Your task to perform on an android device: create a new album in the google photos Image 0: 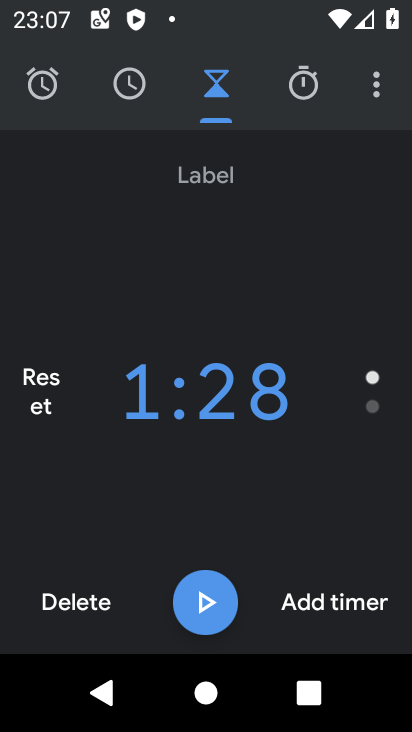
Step 0: press home button
Your task to perform on an android device: create a new album in the google photos Image 1: 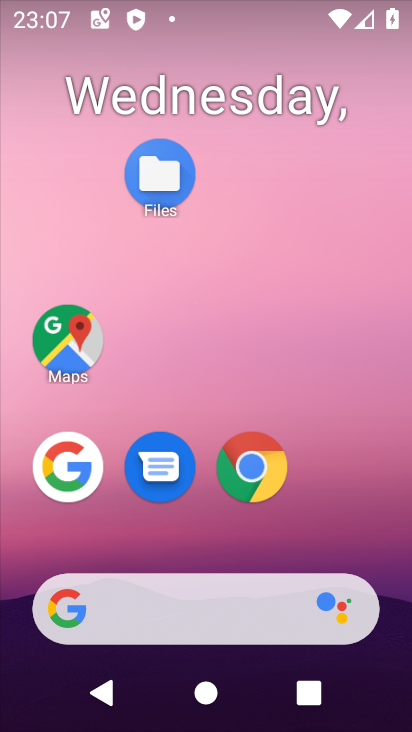
Step 1: drag from (185, 545) to (230, 19)
Your task to perform on an android device: create a new album in the google photos Image 2: 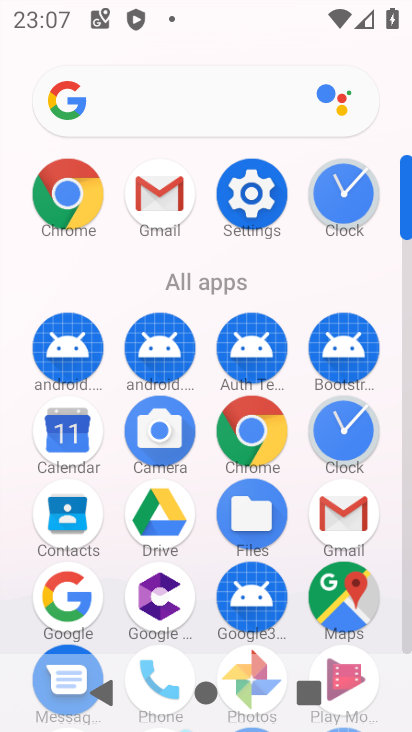
Step 2: drag from (219, 560) to (171, 57)
Your task to perform on an android device: create a new album in the google photos Image 3: 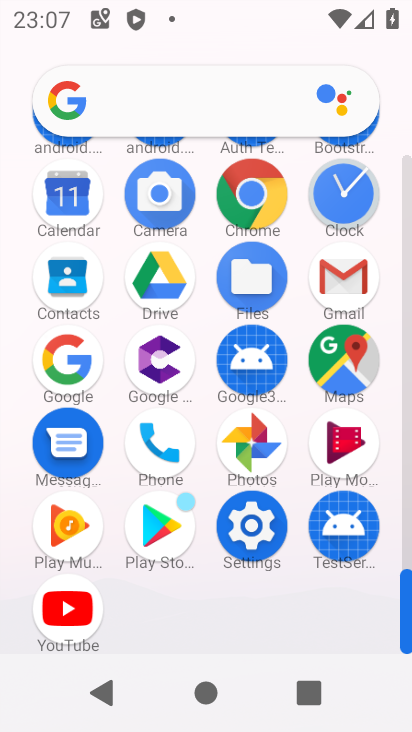
Step 3: click (261, 449)
Your task to perform on an android device: create a new album in the google photos Image 4: 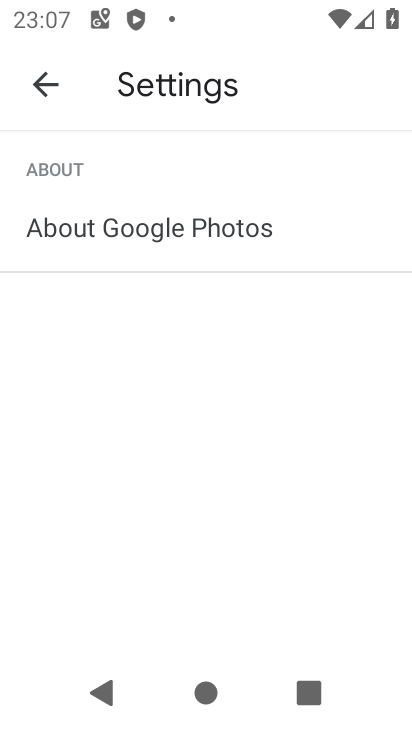
Step 4: click (59, 88)
Your task to perform on an android device: create a new album in the google photos Image 5: 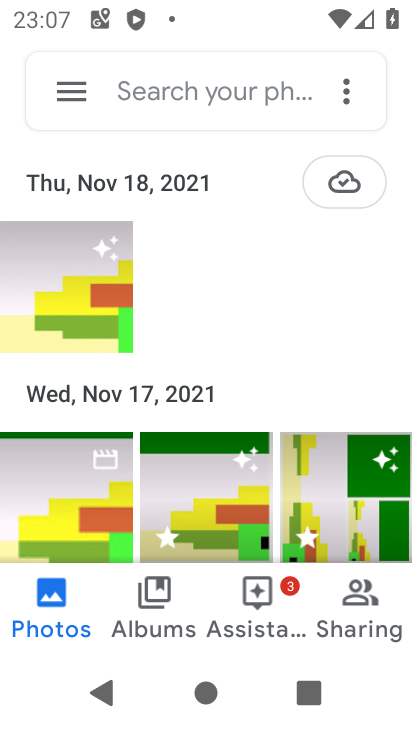
Step 5: click (111, 284)
Your task to perform on an android device: create a new album in the google photos Image 6: 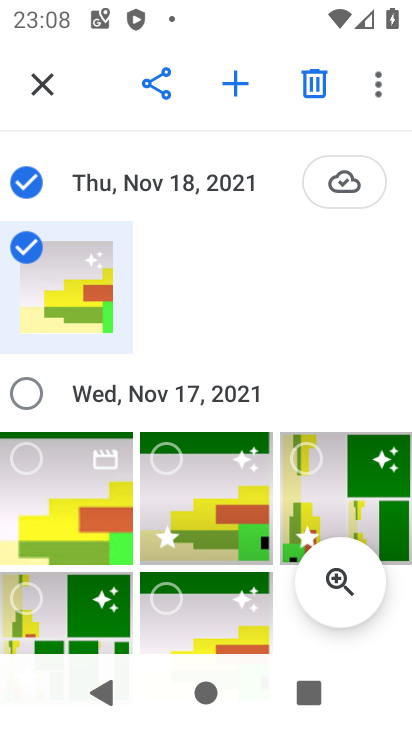
Step 6: click (232, 74)
Your task to perform on an android device: create a new album in the google photos Image 7: 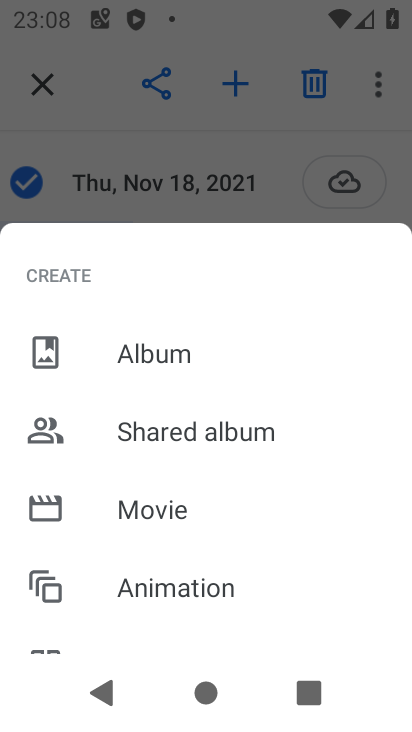
Step 7: click (123, 354)
Your task to perform on an android device: create a new album in the google photos Image 8: 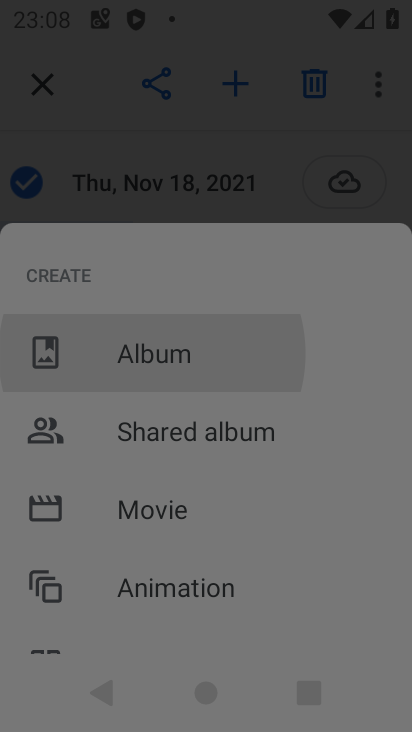
Step 8: click (123, 354)
Your task to perform on an android device: create a new album in the google photos Image 9: 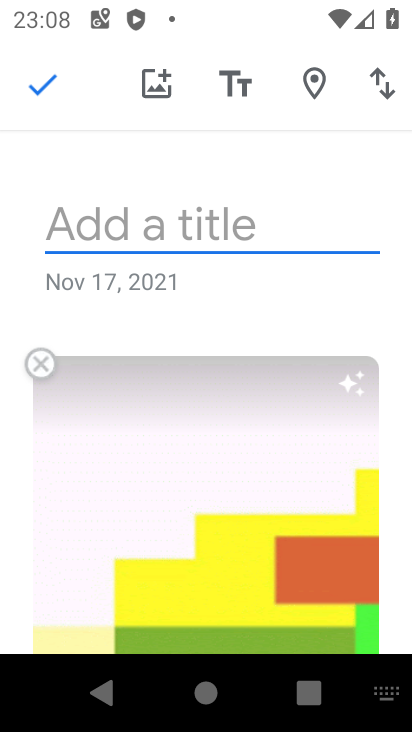
Step 9: type "nike"
Your task to perform on an android device: create a new album in the google photos Image 10: 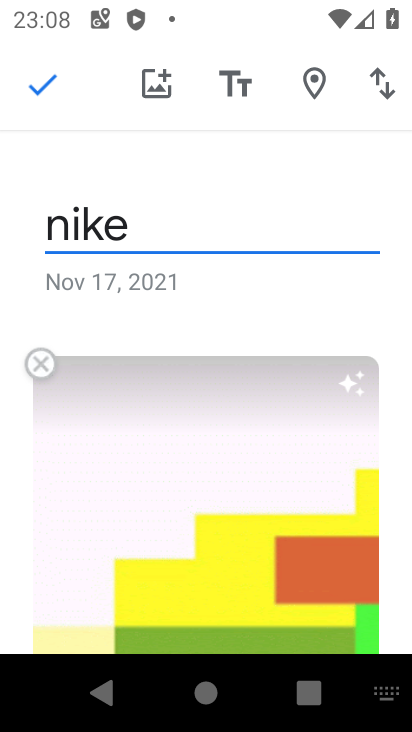
Step 10: click (41, 79)
Your task to perform on an android device: create a new album in the google photos Image 11: 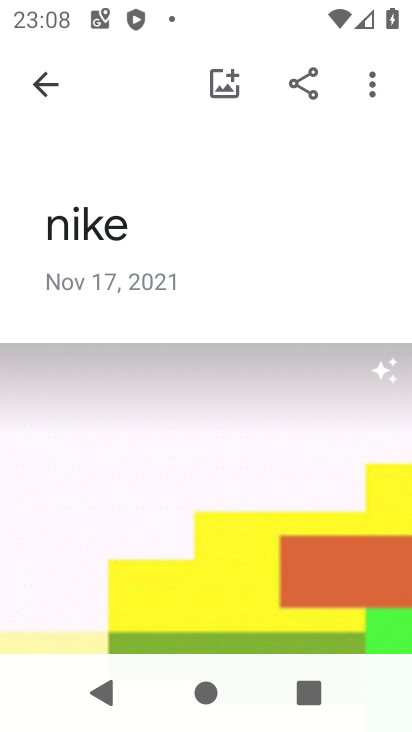
Step 11: task complete